Your task to perform on an android device: Go to Google maps Image 0: 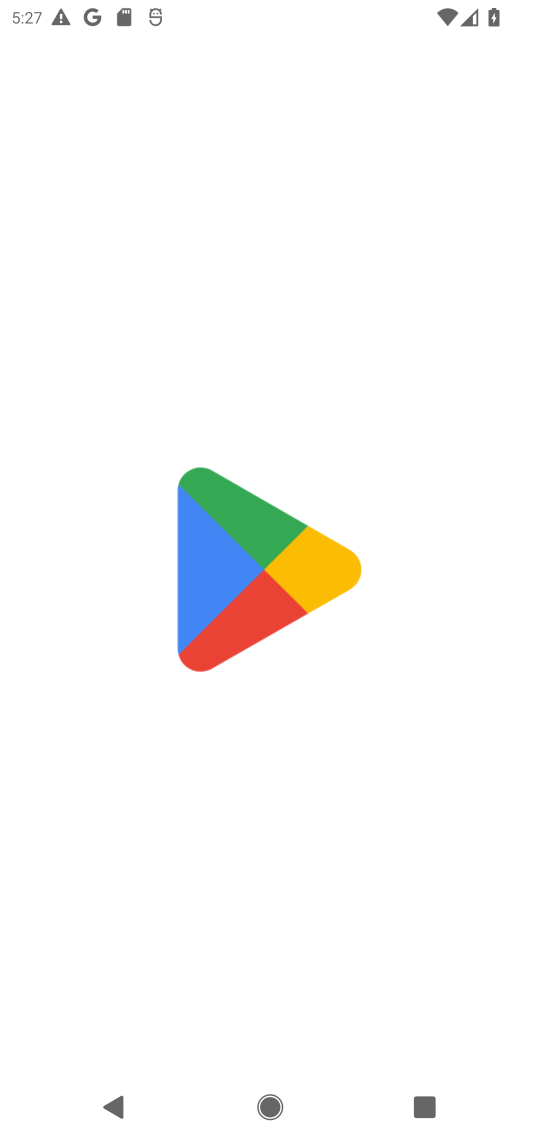
Step 0: press home button
Your task to perform on an android device: Go to Google maps Image 1: 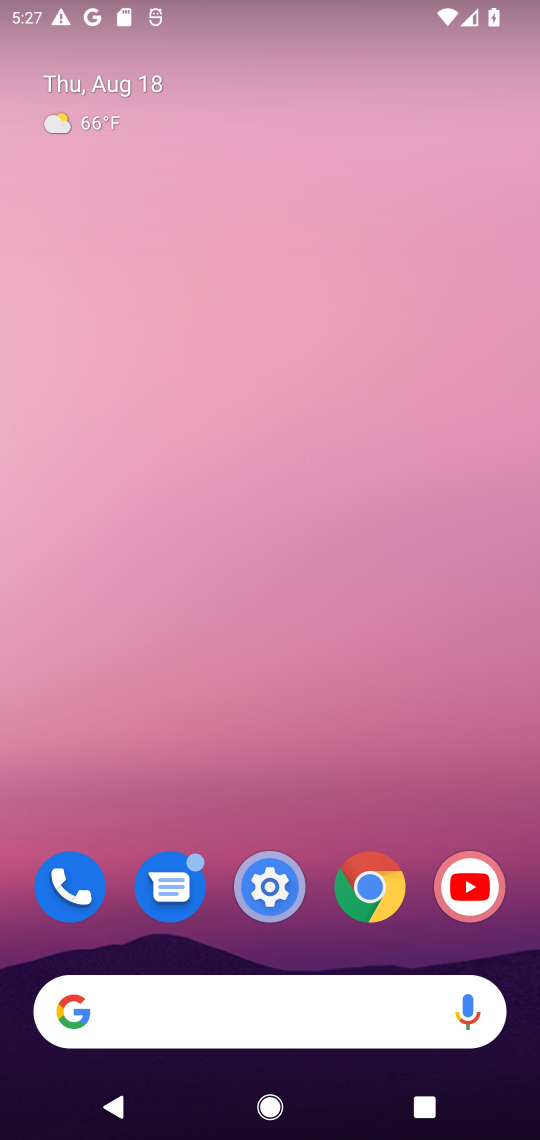
Step 1: task complete